Your task to perform on an android device: Do I have any events today? Image 0: 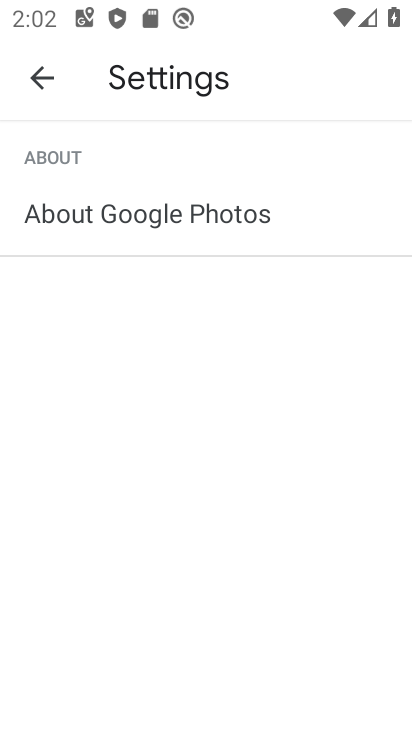
Step 0: press home button
Your task to perform on an android device: Do I have any events today? Image 1: 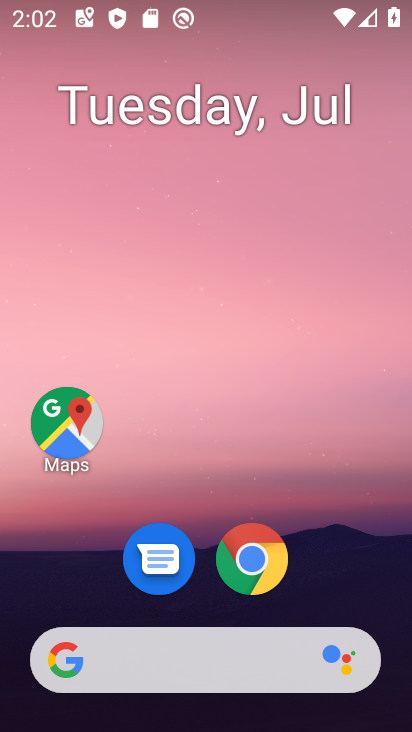
Step 1: drag from (357, 590) to (381, 88)
Your task to perform on an android device: Do I have any events today? Image 2: 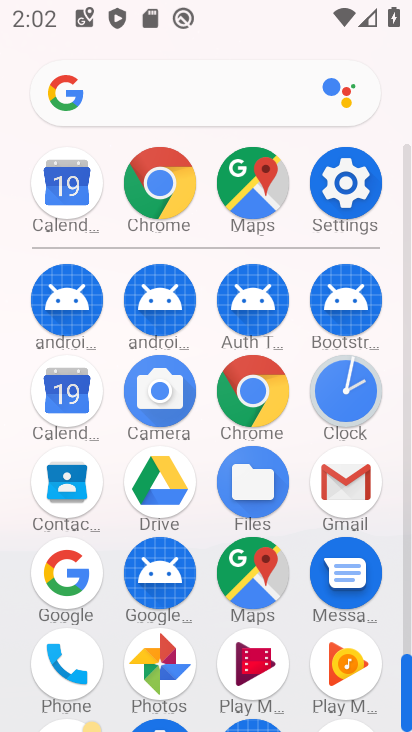
Step 2: click (69, 406)
Your task to perform on an android device: Do I have any events today? Image 3: 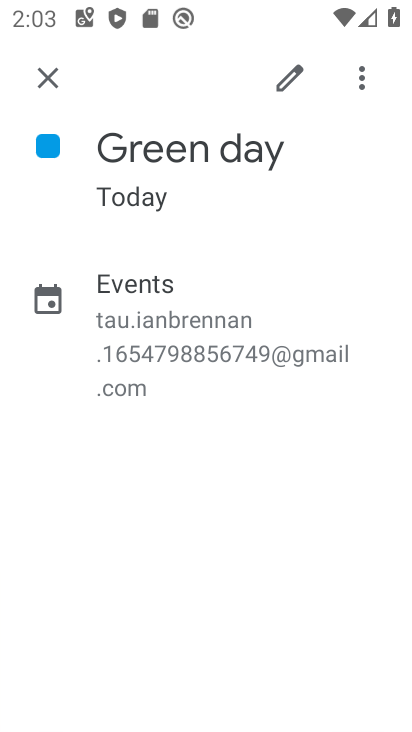
Step 3: task complete